Your task to perform on an android device: see tabs open on other devices in the chrome app Image 0: 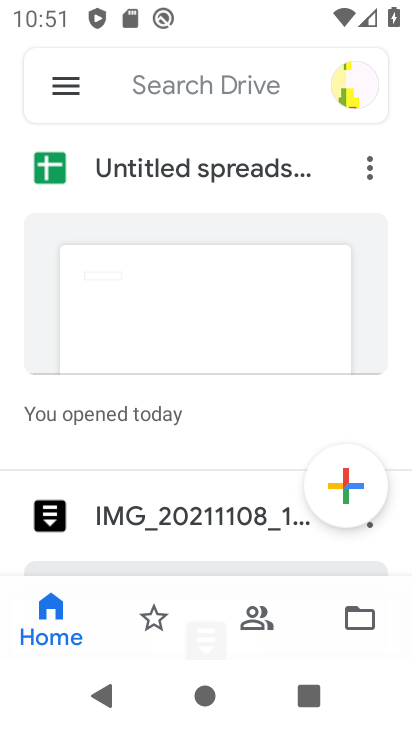
Step 0: press home button
Your task to perform on an android device: see tabs open on other devices in the chrome app Image 1: 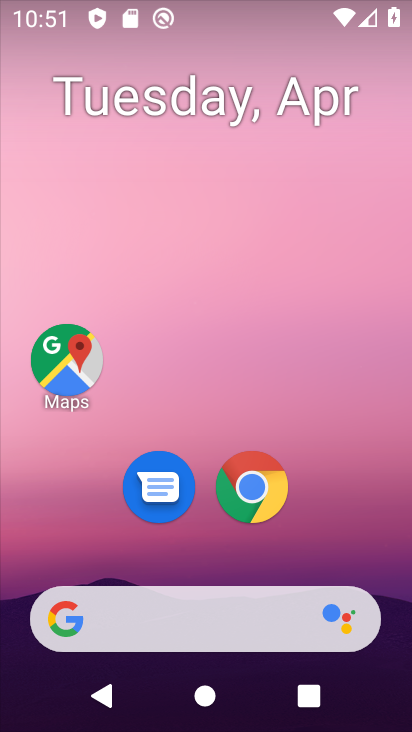
Step 1: click (253, 477)
Your task to perform on an android device: see tabs open on other devices in the chrome app Image 2: 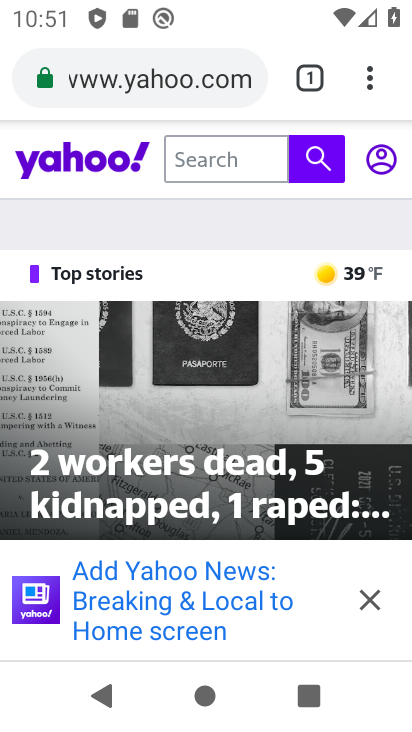
Step 2: task complete